Your task to perform on an android device: toggle airplane mode Image 0: 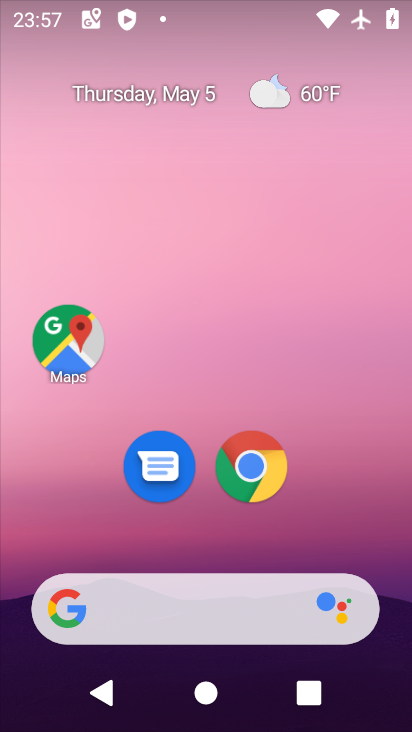
Step 0: drag from (182, 578) to (248, 195)
Your task to perform on an android device: toggle airplane mode Image 1: 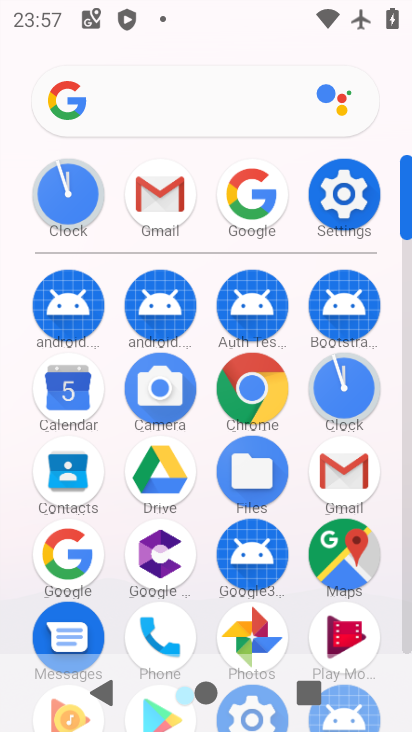
Step 1: click (338, 197)
Your task to perform on an android device: toggle airplane mode Image 2: 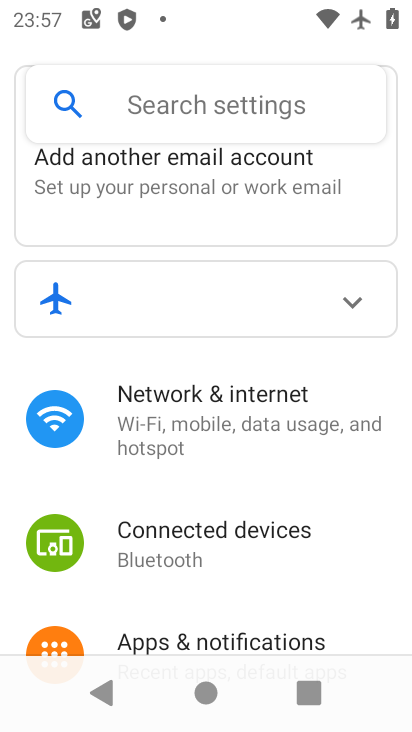
Step 2: click (161, 436)
Your task to perform on an android device: toggle airplane mode Image 3: 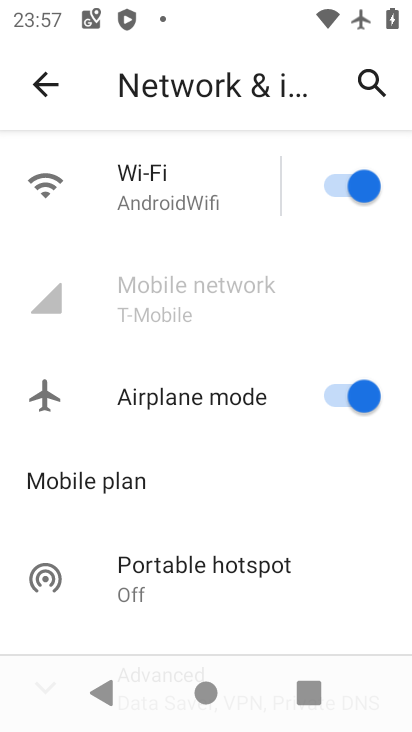
Step 3: click (337, 395)
Your task to perform on an android device: toggle airplane mode Image 4: 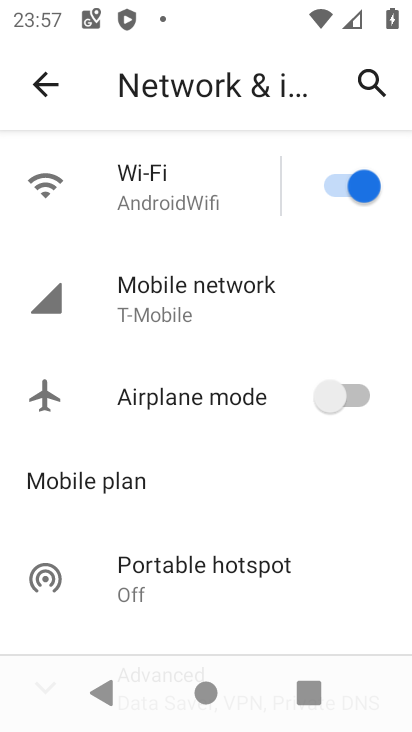
Step 4: task complete